Your task to perform on an android device: change the clock display to show seconds Image 0: 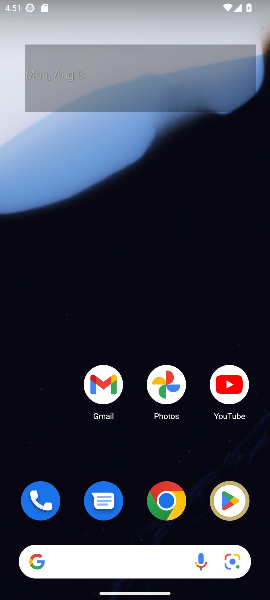
Step 0: drag from (15, 587) to (137, 220)
Your task to perform on an android device: change the clock display to show seconds Image 1: 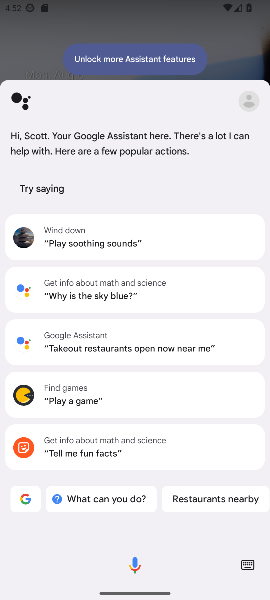
Step 1: task complete